Your task to perform on an android device: toggle javascript in the chrome app Image 0: 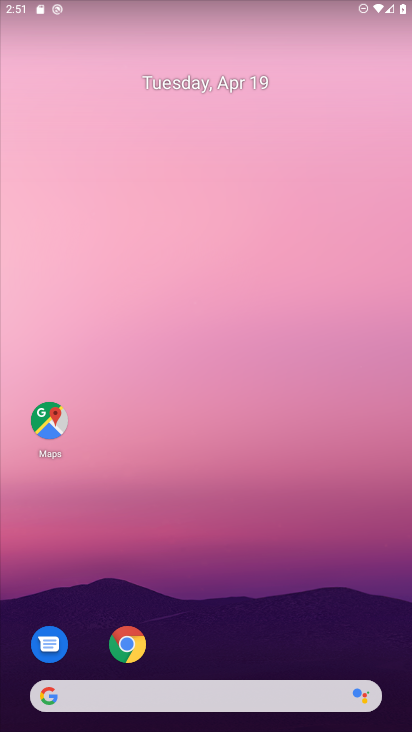
Step 0: click (128, 647)
Your task to perform on an android device: toggle javascript in the chrome app Image 1: 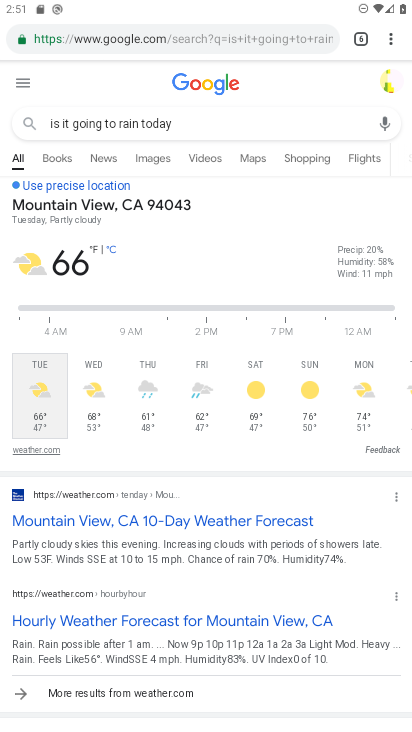
Step 1: click (388, 31)
Your task to perform on an android device: toggle javascript in the chrome app Image 2: 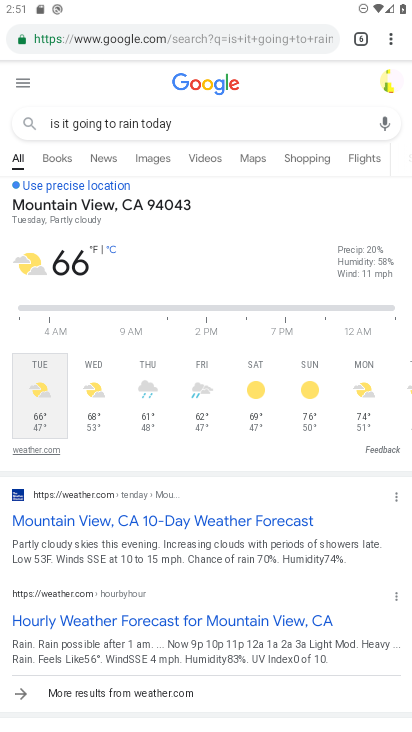
Step 2: click (392, 38)
Your task to perform on an android device: toggle javascript in the chrome app Image 3: 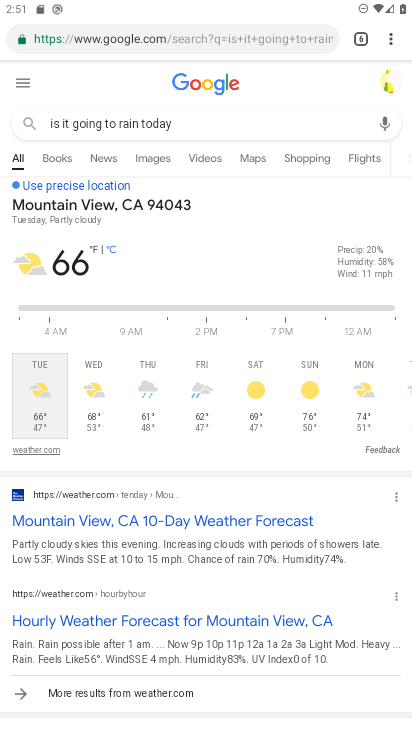
Step 3: click (391, 38)
Your task to perform on an android device: toggle javascript in the chrome app Image 4: 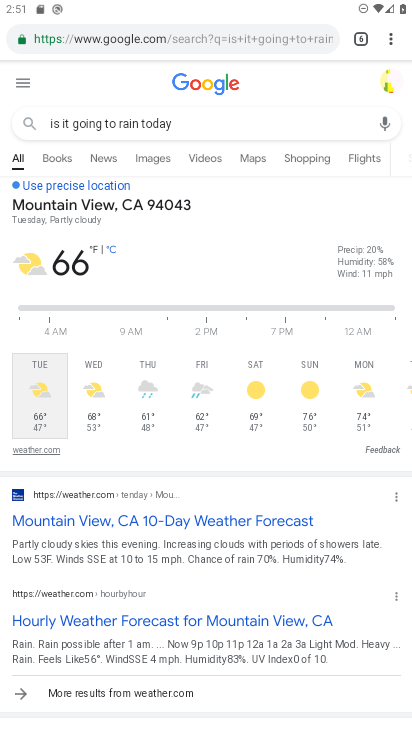
Step 4: click (387, 36)
Your task to perform on an android device: toggle javascript in the chrome app Image 5: 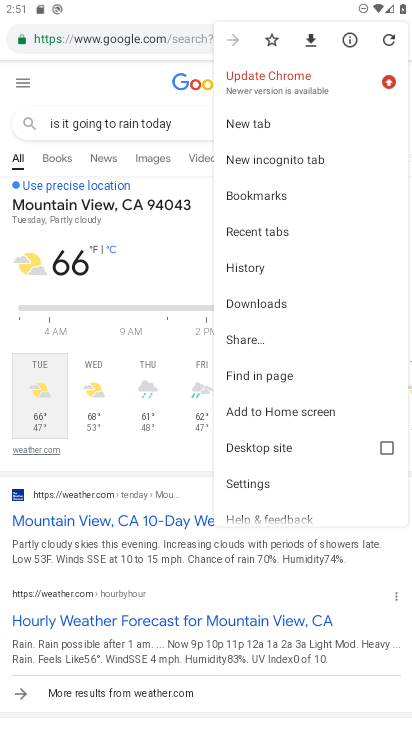
Step 5: click (238, 481)
Your task to perform on an android device: toggle javascript in the chrome app Image 6: 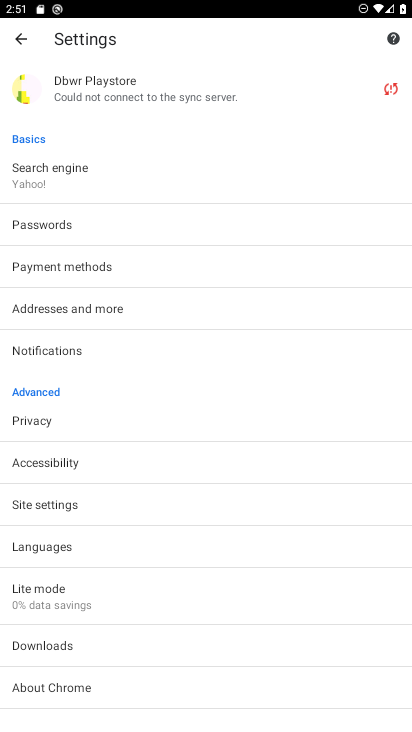
Step 6: click (34, 500)
Your task to perform on an android device: toggle javascript in the chrome app Image 7: 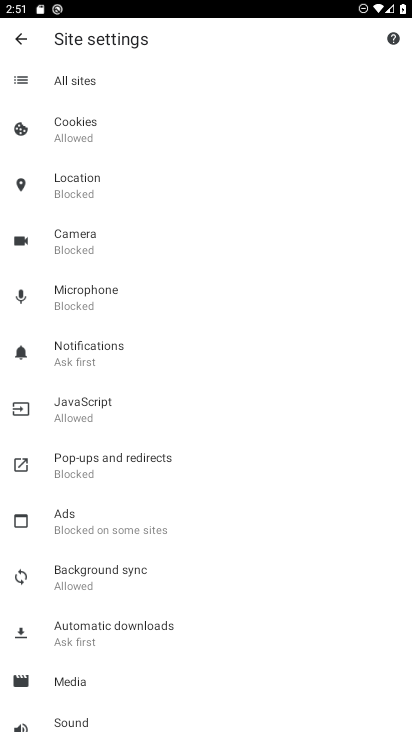
Step 7: click (73, 419)
Your task to perform on an android device: toggle javascript in the chrome app Image 8: 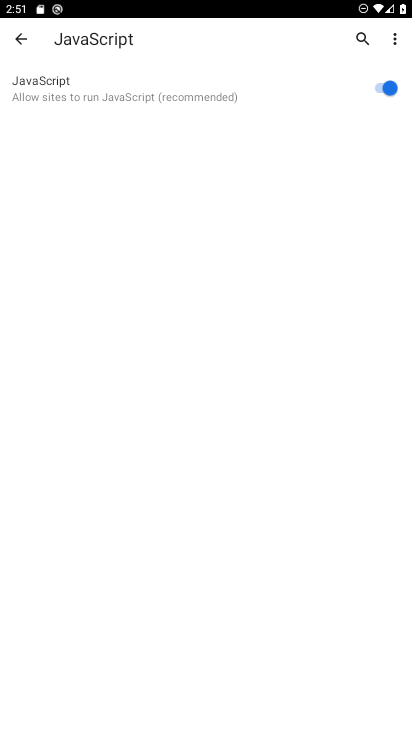
Step 8: click (384, 89)
Your task to perform on an android device: toggle javascript in the chrome app Image 9: 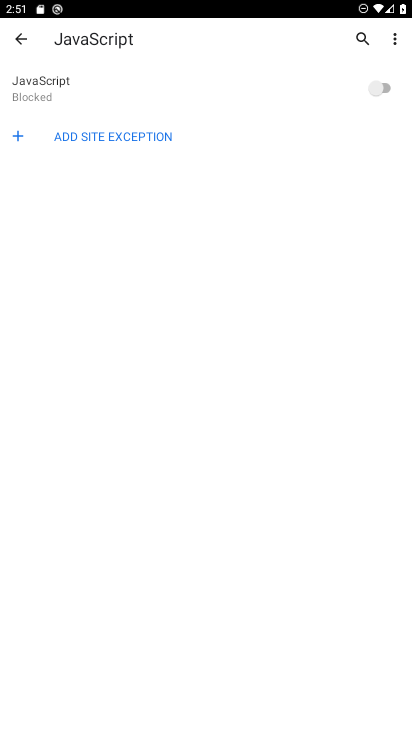
Step 9: task complete